Your task to perform on an android device: make emails show in primary in the gmail app Image 0: 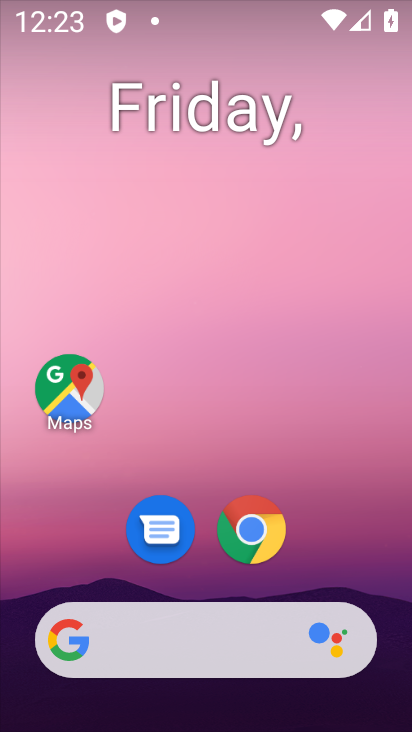
Step 0: drag from (221, 612) to (228, 184)
Your task to perform on an android device: make emails show in primary in the gmail app Image 1: 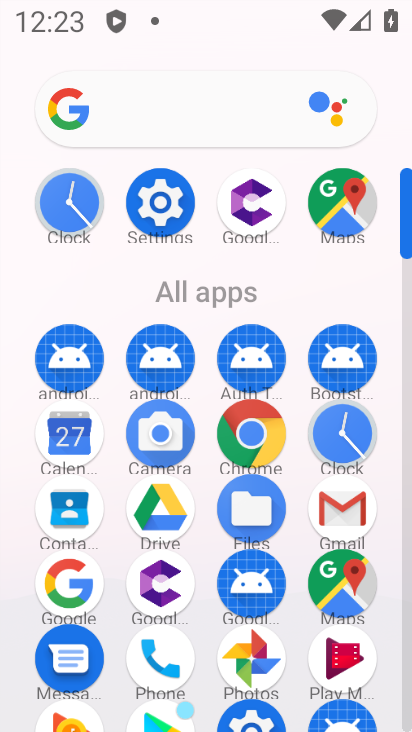
Step 1: click (329, 511)
Your task to perform on an android device: make emails show in primary in the gmail app Image 2: 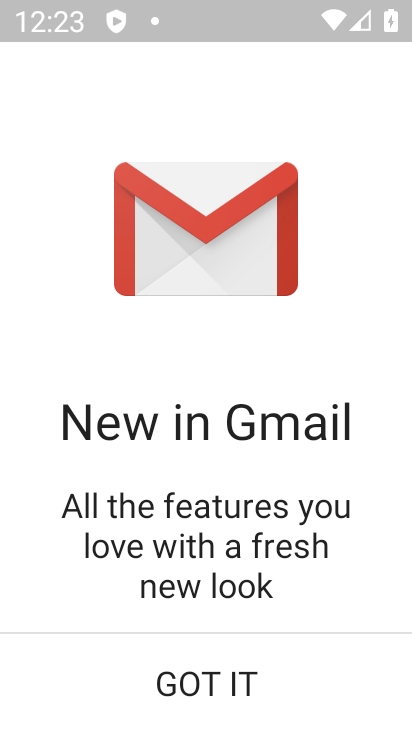
Step 2: click (204, 679)
Your task to perform on an android device: make emails show in primary in the gmail app Image 3: 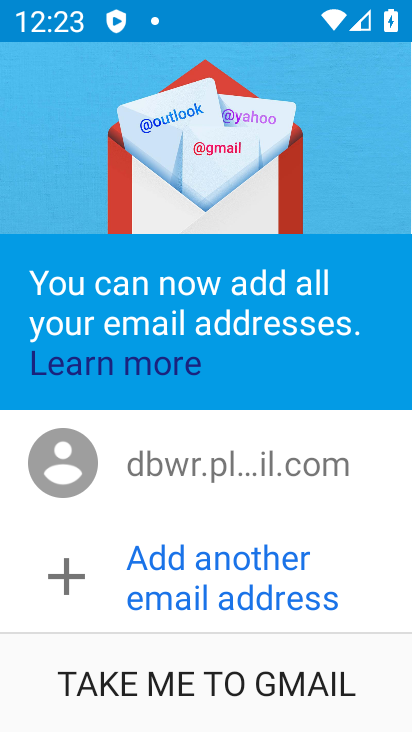
Step 3: click (206, 688)
Your task to perform on an android device: make emails show in primary in the gmail app Image 4: 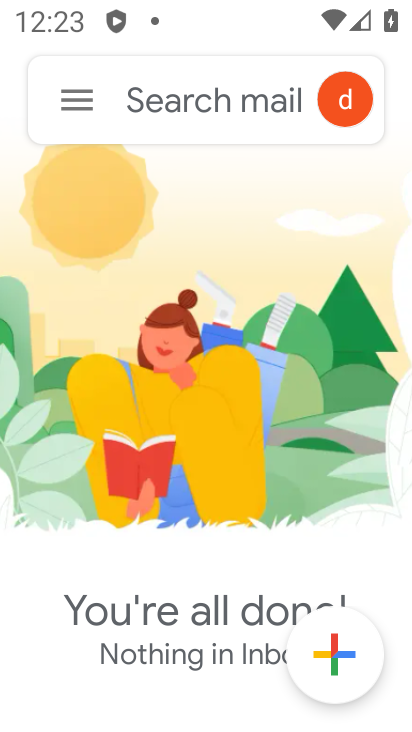
Step 4: click (83, 100)
Your task to perform on an android device: make emails show in primary in the gmail app Image 5: 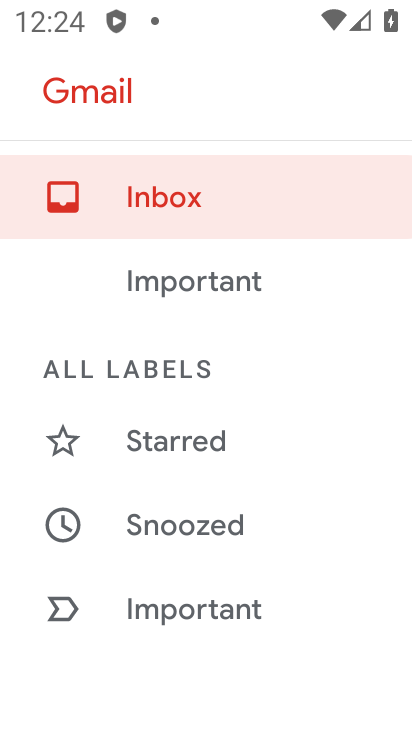
Step 5: drag from (184, 629) to (179, 247)
Your task to perform on an android device: make emails show in primary in the gmail app Image 6: 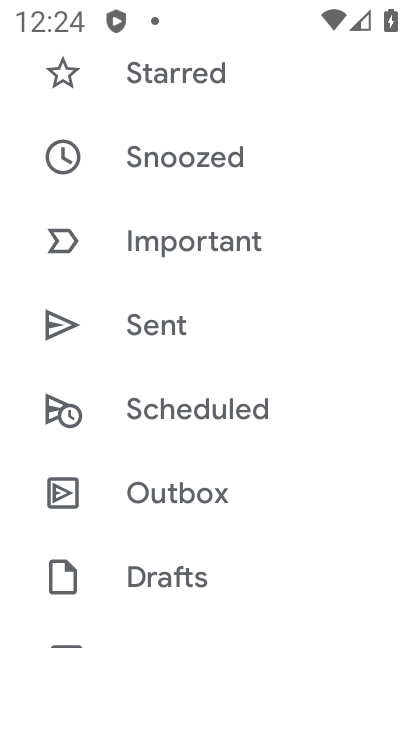
Step 6: drag from (173, 642) to (178, 387)
Your task to perform on an android device: make emails show in primary in the gmail app Image 7: 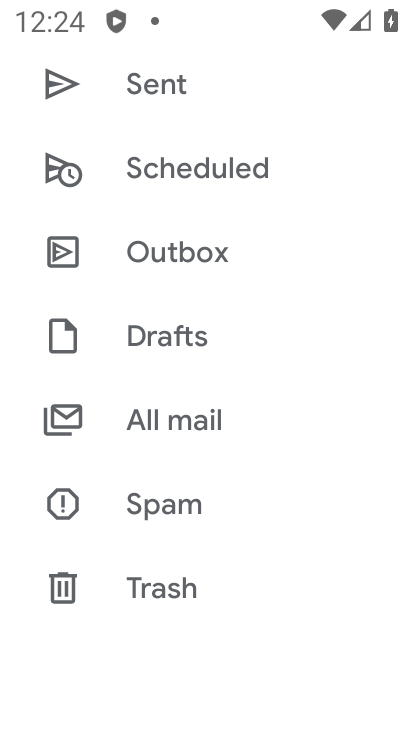
Step 7: drag from (227, 467) to (227, 330)
Your task to perform on an android device: make emails show in primary in the gmail app Image 8: 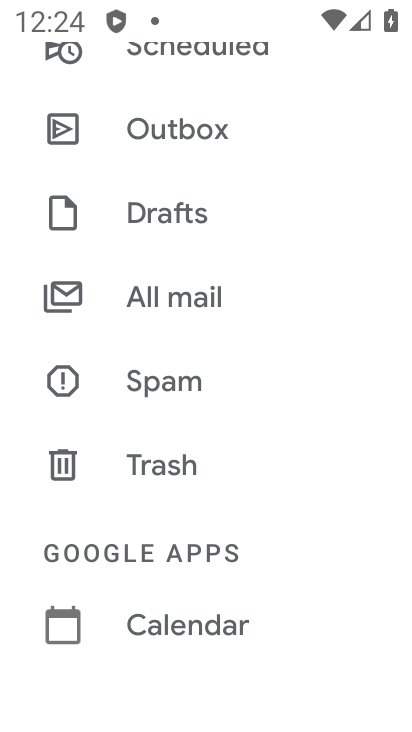
Step 8: drag from (231, 662) to (243, 393)
Your task to perform on an android device: make emails show in primary in the gmail app Image 9: 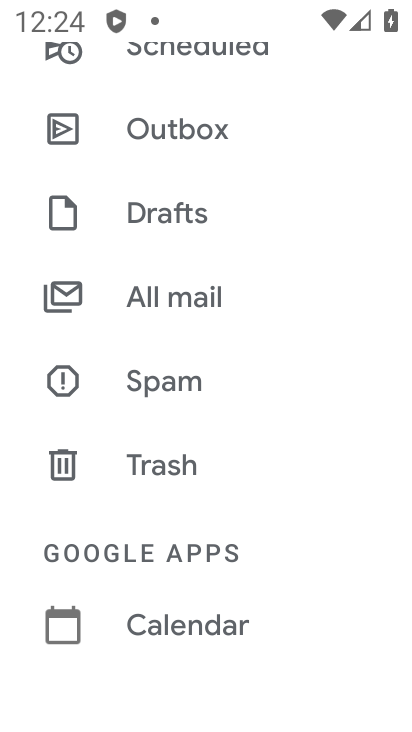
Step 9: drag from (262, 635) to (259, 414)
Your task to perform on an android device: make emails show in primary in the gmail app Image 10: 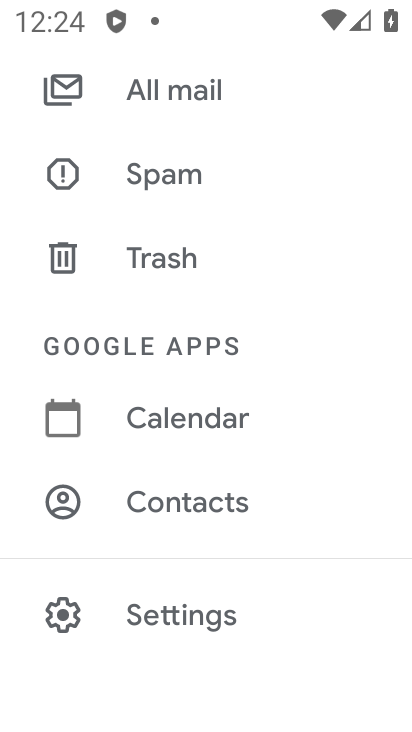
Step 10: click (226, 619)
Your task to perform on an android device: make emails show in primary in the gmail app Image 11: 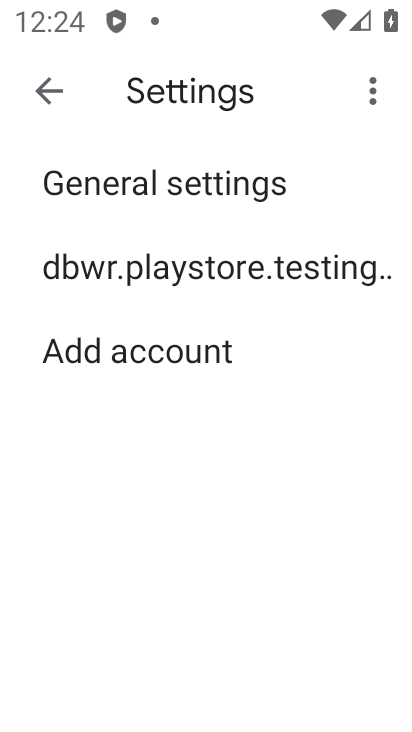
Step 11: click (117, 267)
Your task to perform on an android device: make emails show in primary in the gmail app Image 12: 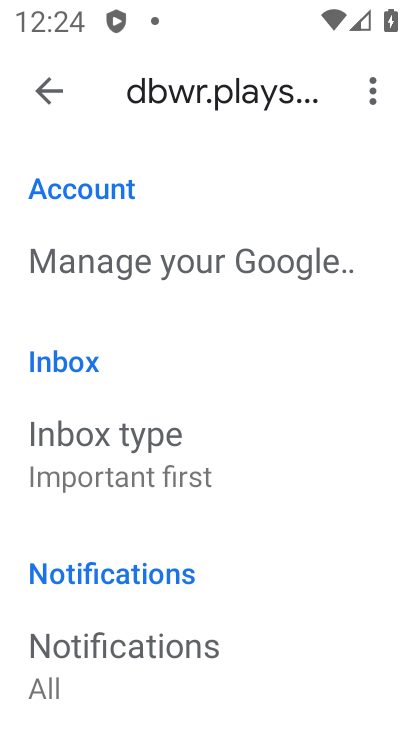
Step 12: drag from (170, 699) to (207, 348)
Your task to perform on an android device: make emails show in primary in the gmail app Image 13: 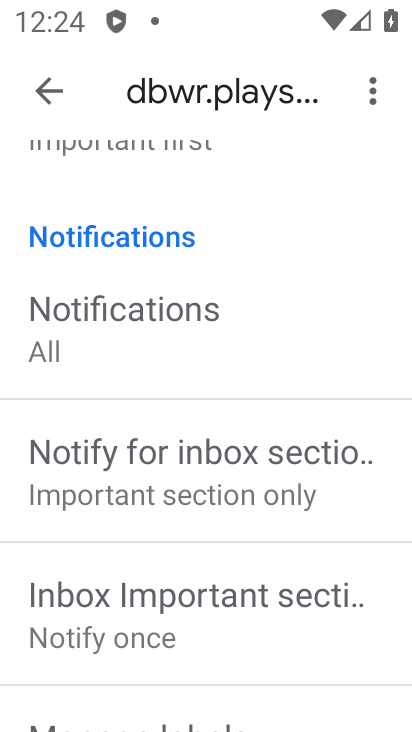
Step 13: drag from (212, 171) to (226, 552)
Your task to perform on an android device: make emails show in primary in the gmail app Image 14: 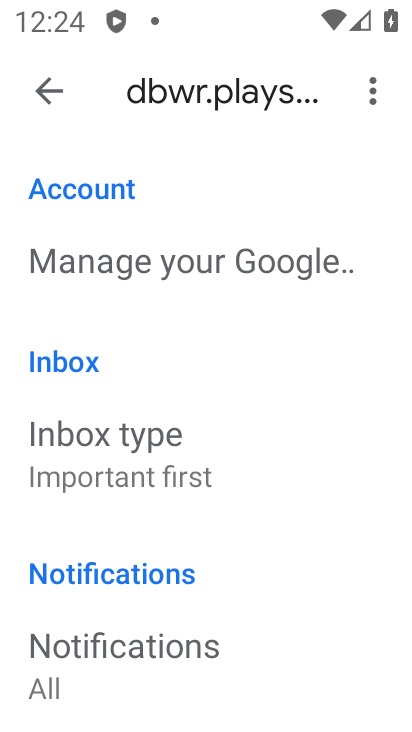
Step 14: click (135, 458)
Your task to perform on an android device: make emails show in primary in the gmail app Image 15: 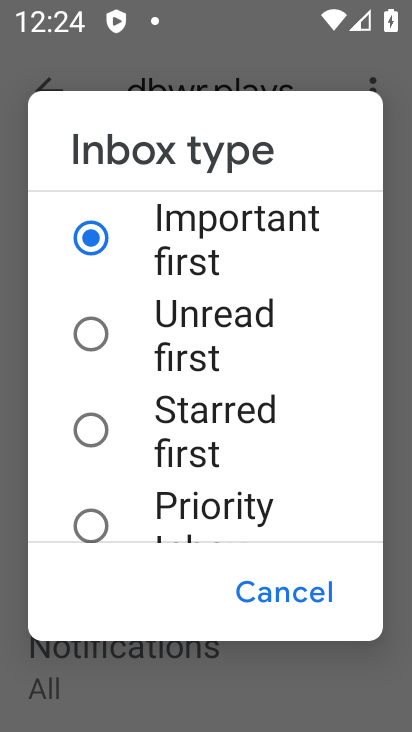
Step 15: drag from (211, 242) to (231, 563)
Your task to perform on an android device: make emails show in primary in the gmail app Image 16: 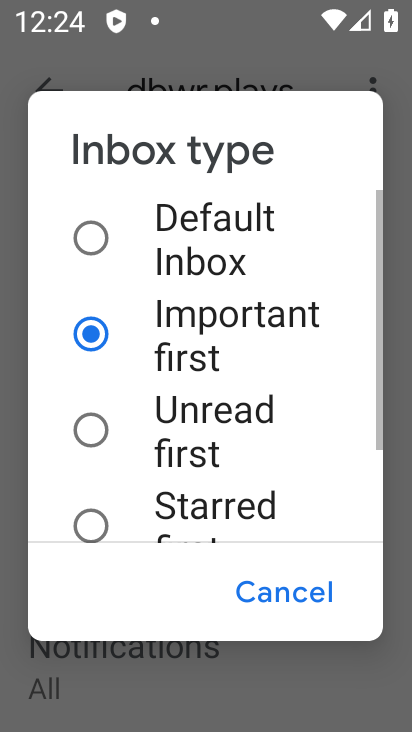
Step 16: click (219, 214)
Your task to perform on an android device: make emails show in primary in the gmail app Image 17: 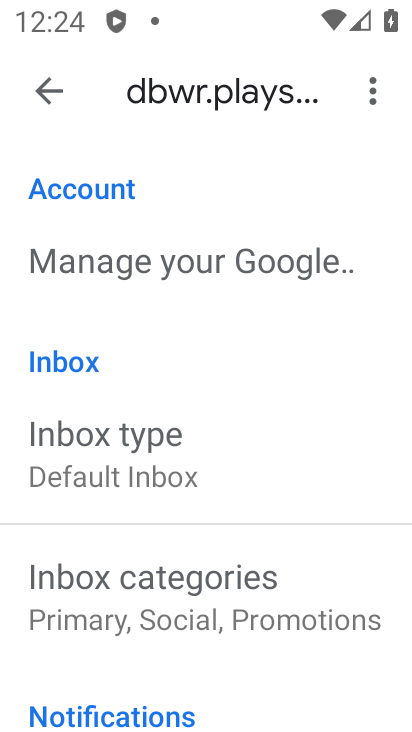
Step 17: click (175, 599)
Your task to perform on an android device: make emails show in primary in the gmail app Image 18: 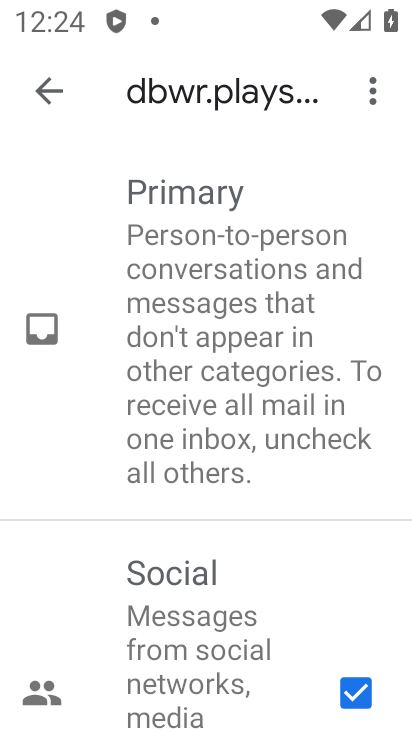
Step 18: drag from (253, 667) to (285, 321)
Your task to perform on an android device: make emails show in primary in the gmail app Image 19: 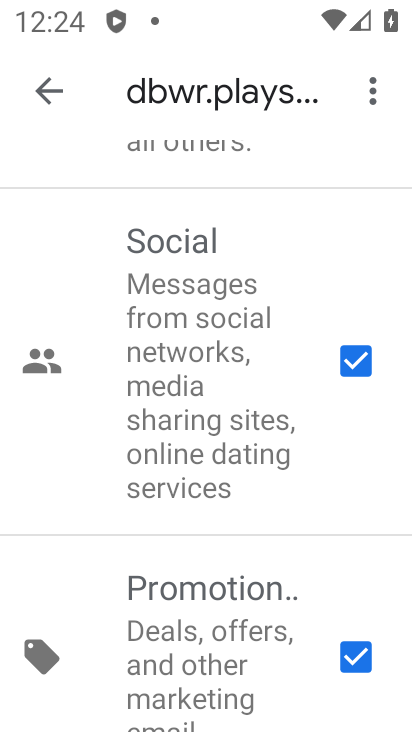
Step 19: click (354, 359)
Your task to perform on an android device: make emails show in primary in the gmail app Image 20: 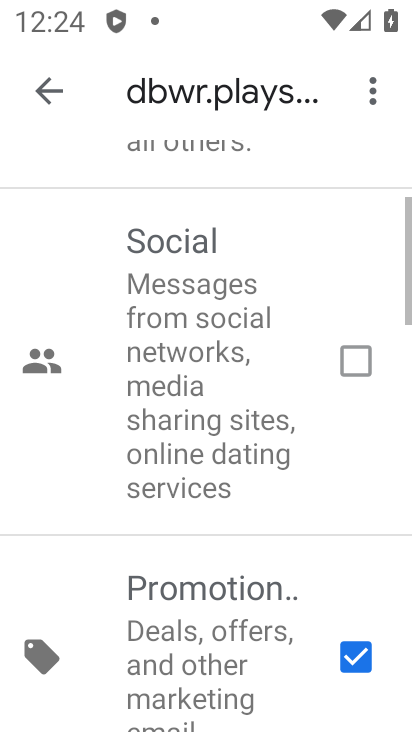
Step 20: click (360, 662)
Your task to perform on an android device: make emails show in primary in the gmail app Image 21: 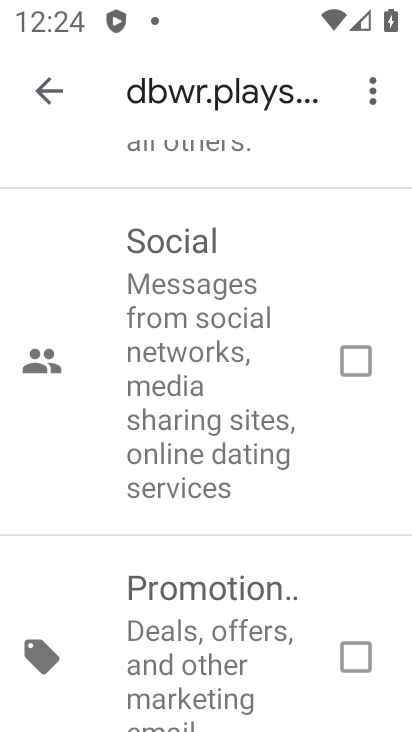
Step 21: click (48, 98)
Your task to perform on an android device: make emails show in primary in the gmail app Image 22: 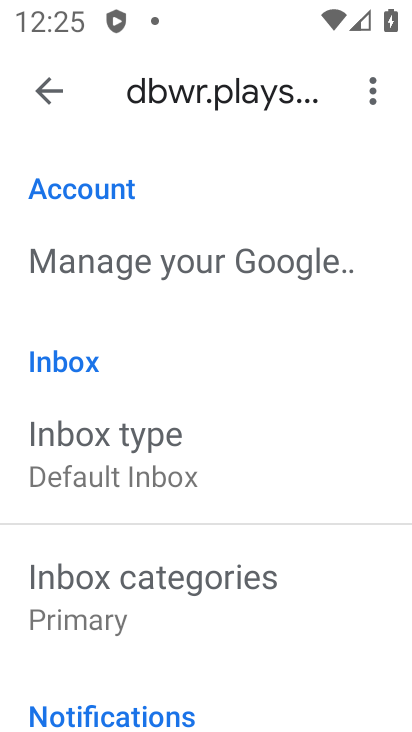
Step 22: task complete